Your task to perform on an android device: Open Google Chrome Image 0: 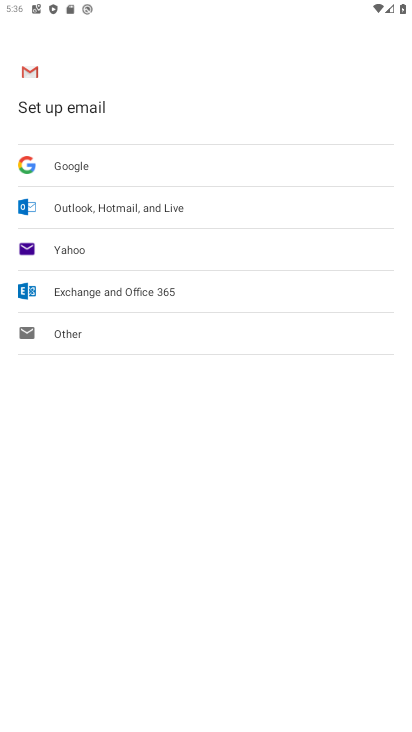
Step 0: press home button
Your task to perform on an android device: Open Google Chrome Image 1: 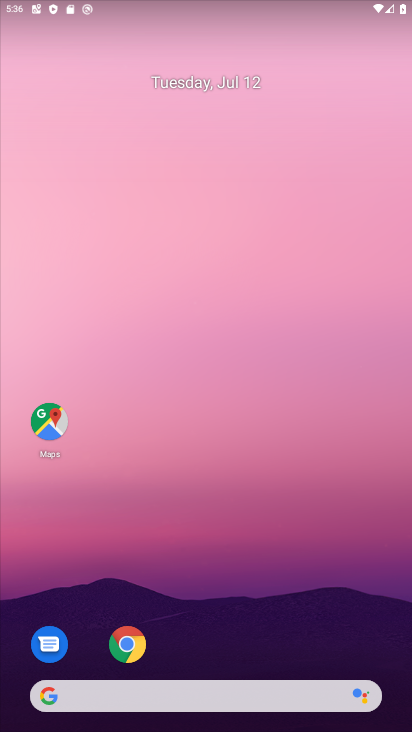
Step 1: click (125, 625)
Your task to perform on an android device: Open Google Chrome Image 2: 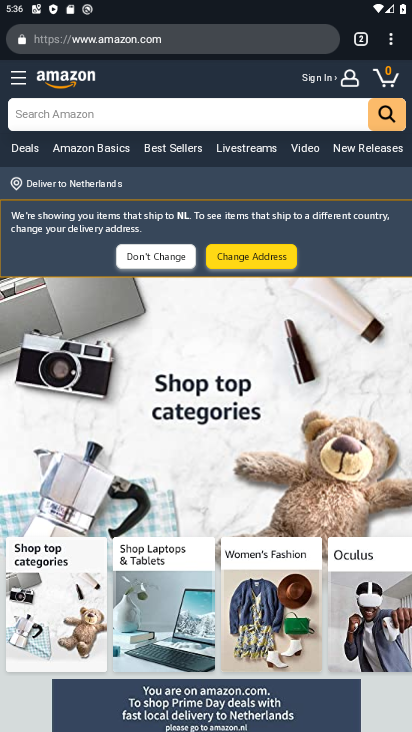
Step 2: task complete